Your task to perform on an android device: Turn off the flashlight Image 0: 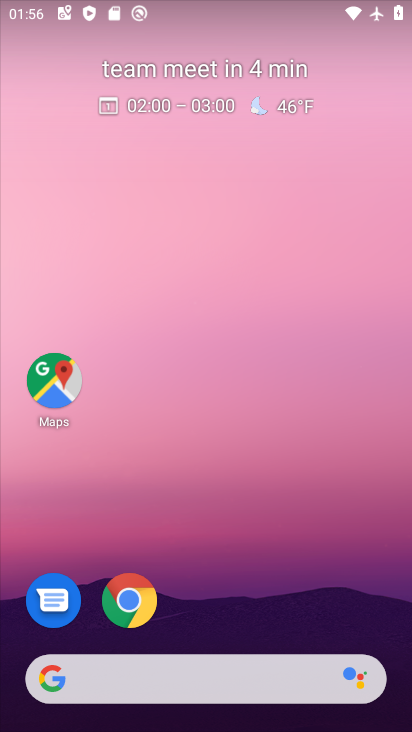
Step 0: drag from (228, 644) to (138, 38)
Your task to perform on an android device: Turn off the flashlight Image 1: 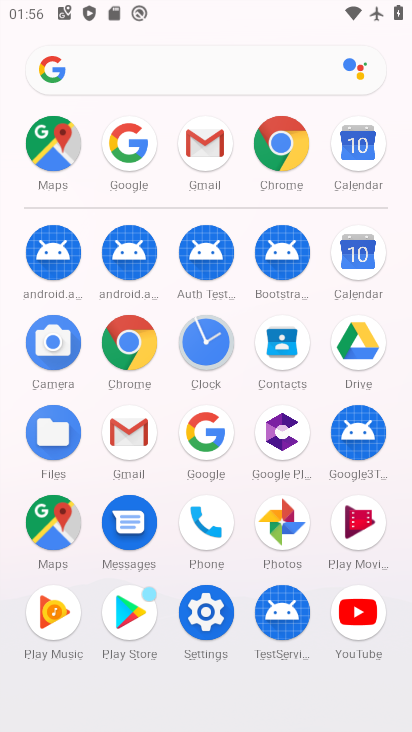
Step 1: click (210, 628)
Your task to perform on an android device: Turn off the flashlight Image 2: 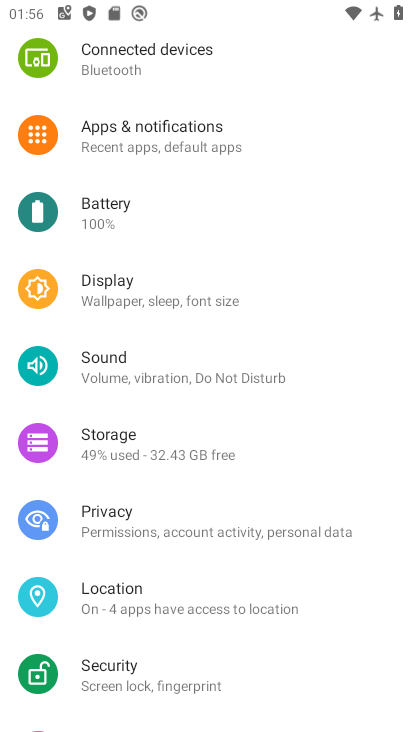
Step 2: drag from (231, 128) to (231, 521)
Your task to perform on an android device: Turn off the flashlight Image 3: 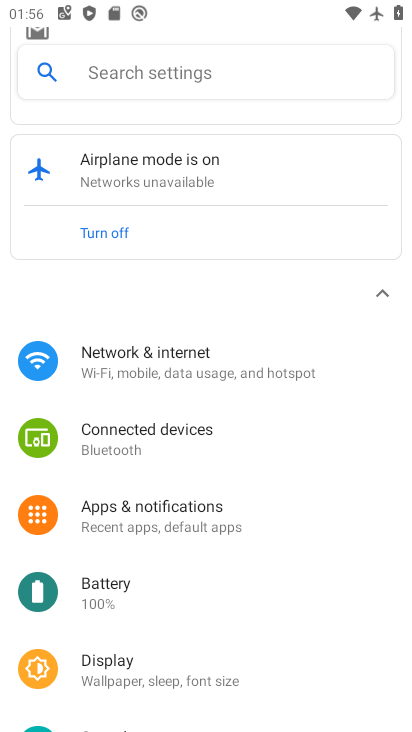
Step 3: click (170, 81)
Your task to perform on an android device: Turn off the flashlight Image 4: 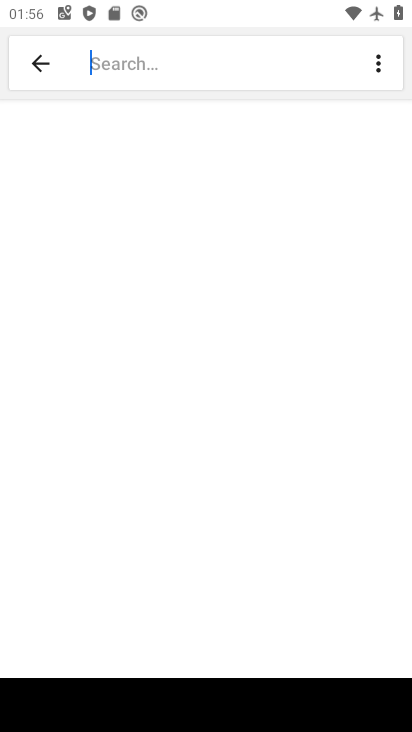
Step 4: type "flashlight"
Your task to perform on an android device: Turn off the flashlight Image 5: 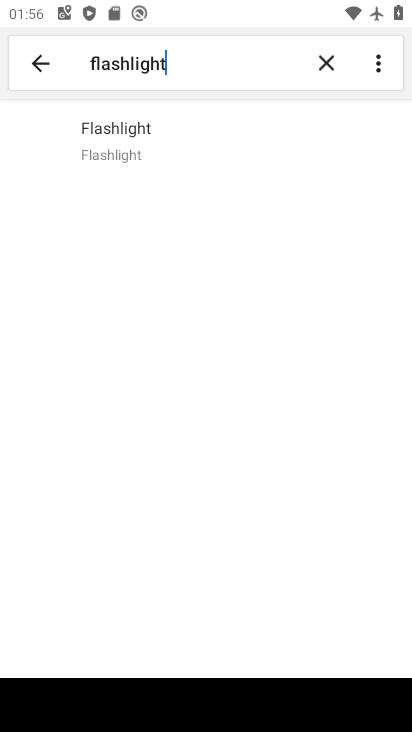
Step 5: task complete